Your task to perform on an android device: Is it going to rain today? Image 0: 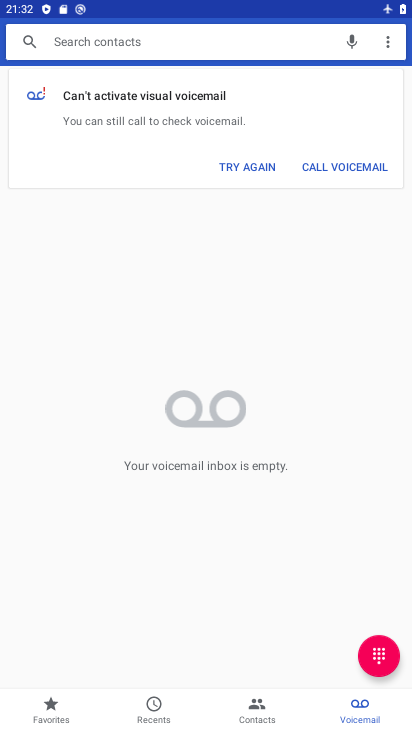
Step 0: press home button
Your task to perform on an android device: Is it going to rain today? Image 1: 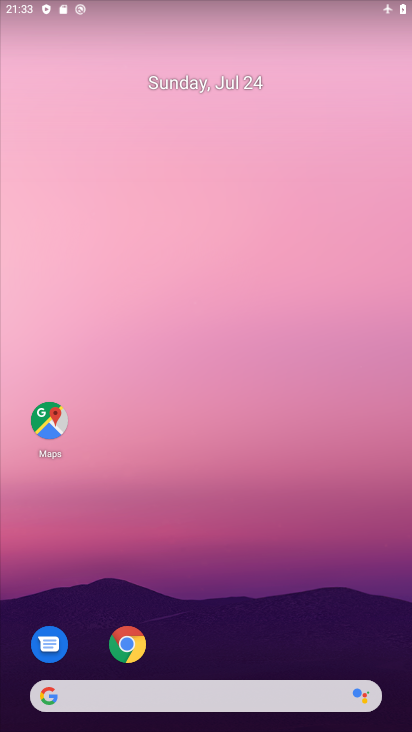
Step 1: click (197, 691)
Your task to perform on an android device: Is it going to rain today? Image 2: 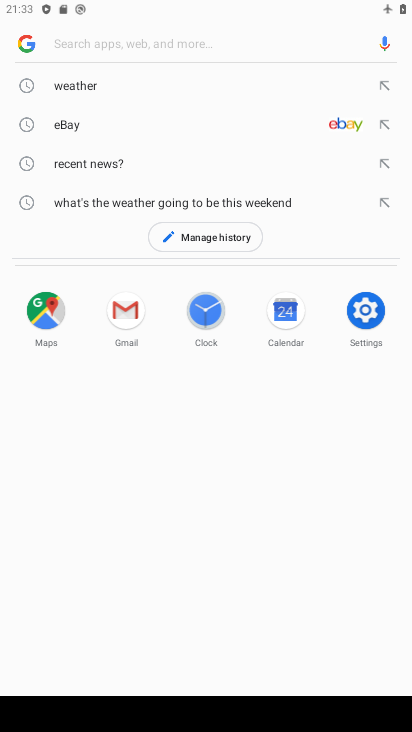
Step 2: click (70, 78)
Your task to perform on an android device: Is it going to rain today? Image 3: 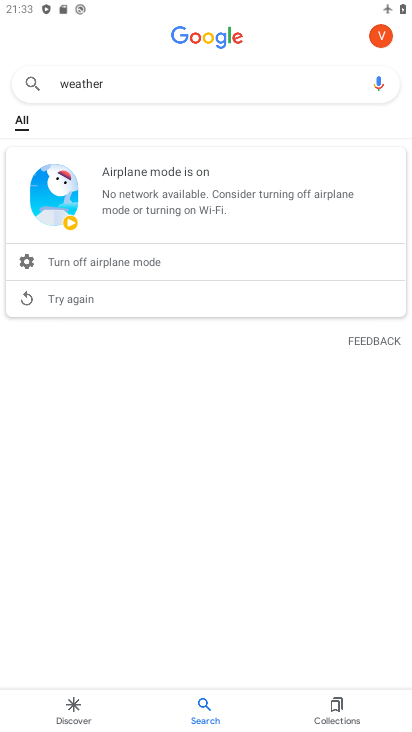
Step 3: click (23, 300)
Your task to perform on an android device: Is it going to rain today? Image 4: 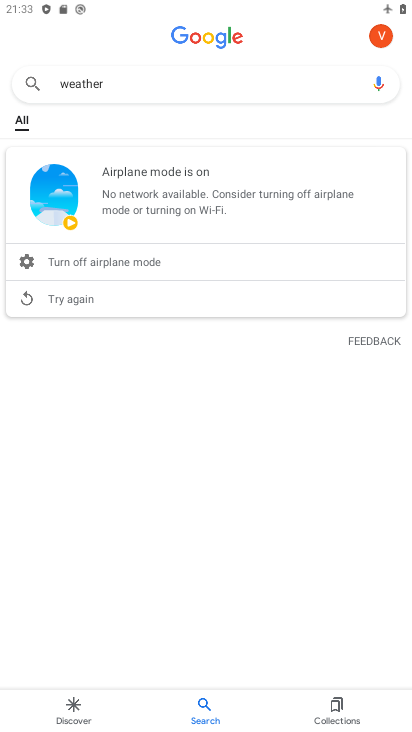
Step 4: click (23, 300)
Your task to perform on an android device: Is it going to rain today? Image 5: 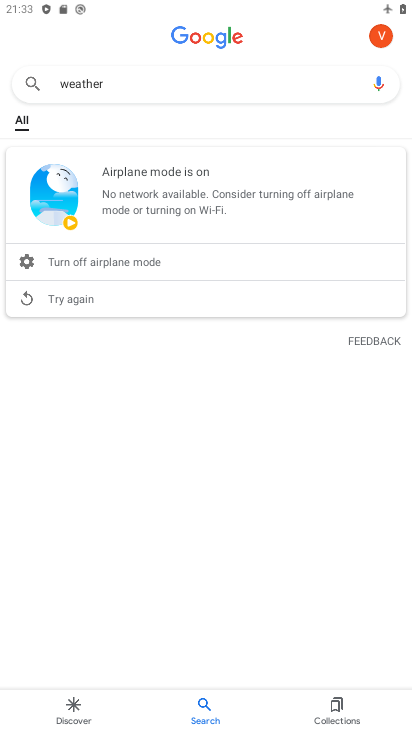
Step 5: click (23, 300)
Your task to perform on an android device: Is it going to rain today? Image 6: 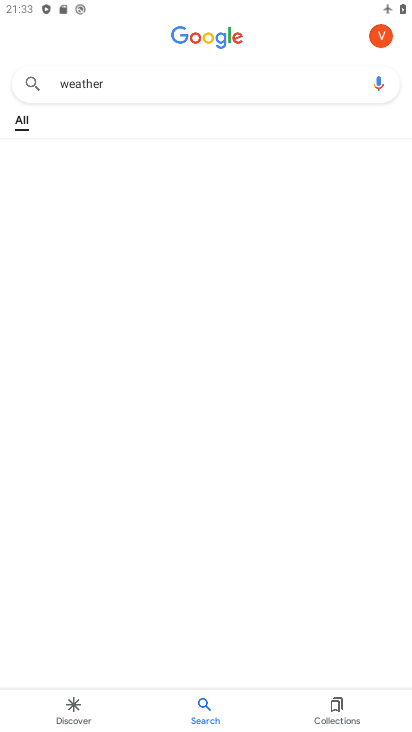
Step 6: click (23, 300)
Your task to perform on an android device: Is it going to rain today? Image 7: 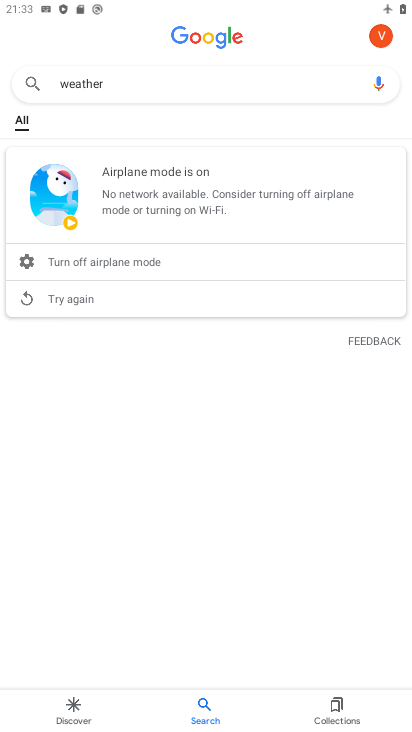
Step 7: task complete